Your task to perform on an android device: Go to privacy settings Image 0: 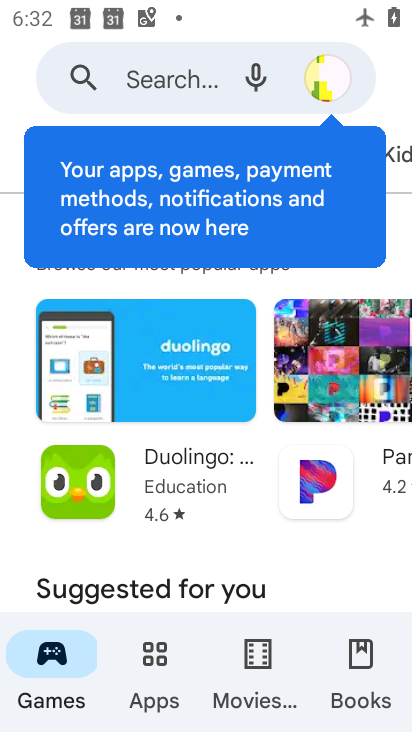
Step 0: press home button
Your task to perform on an android device: Go to privacy settings Image 1: 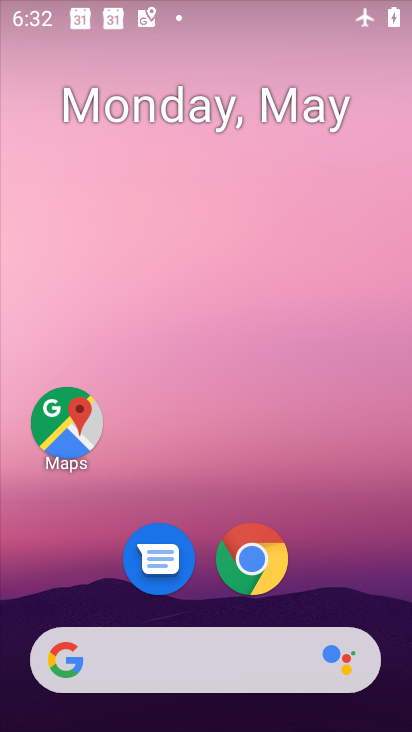
Step 1: drag from (392, 644) to (244, 0)
Your task to perform on an android device: Go to privacy settings Image 2: 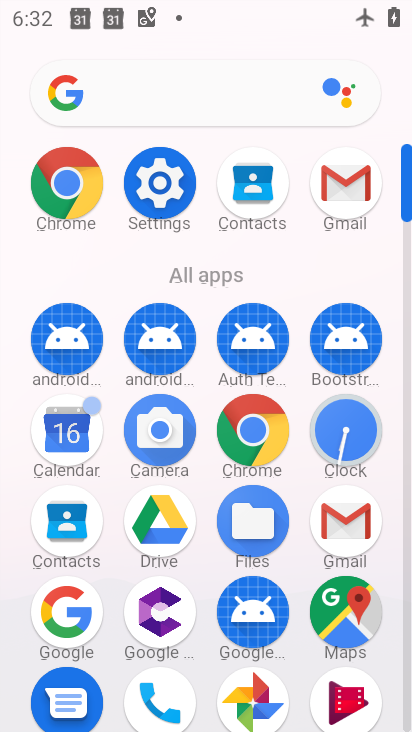
Step 2: click (172, 176)
Your task to perform on an android device: Go to privacy settings Image 3: 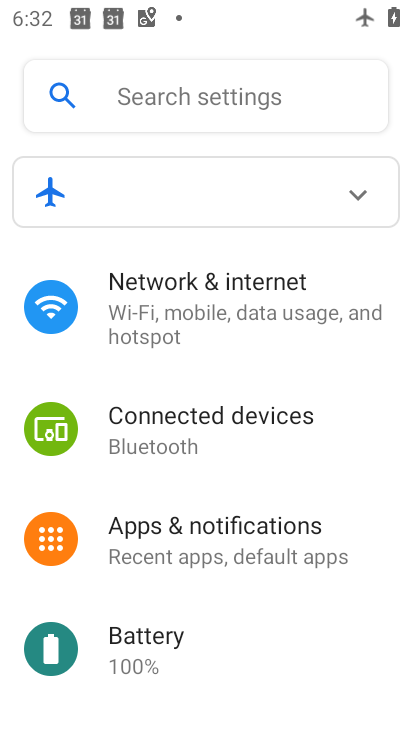
Step 3: drag from (99, 605) to (155, 80)
Your task to perform on an android device: Go to privacy settings Image 4: 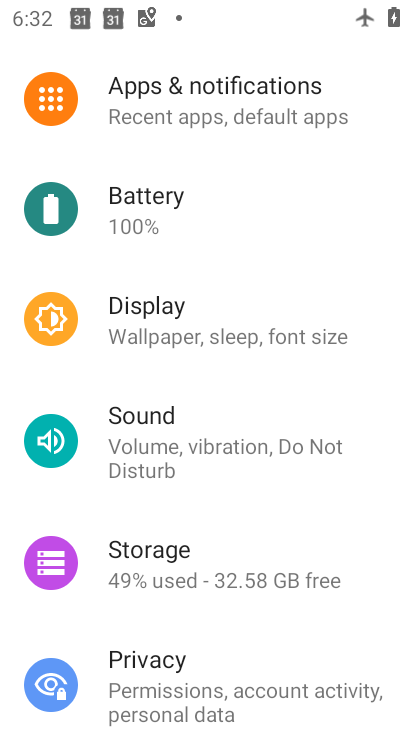
Step 4: click (150, 707)
Your task to perform on an android device: Go to privacy settings Image 5: 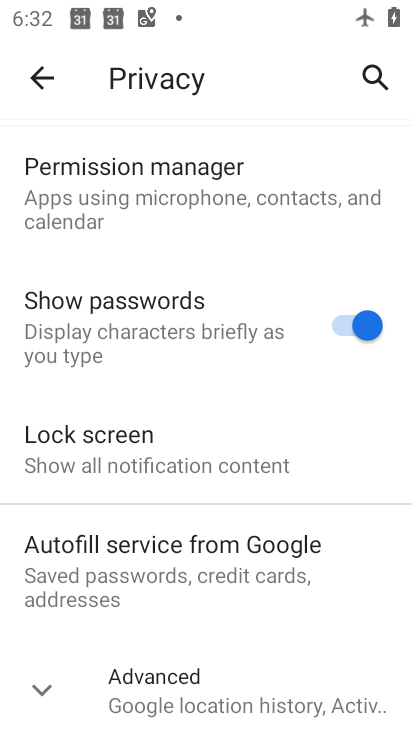
Step 5: task complete